Your task to perform on an android device: open wifi settings Image 0: 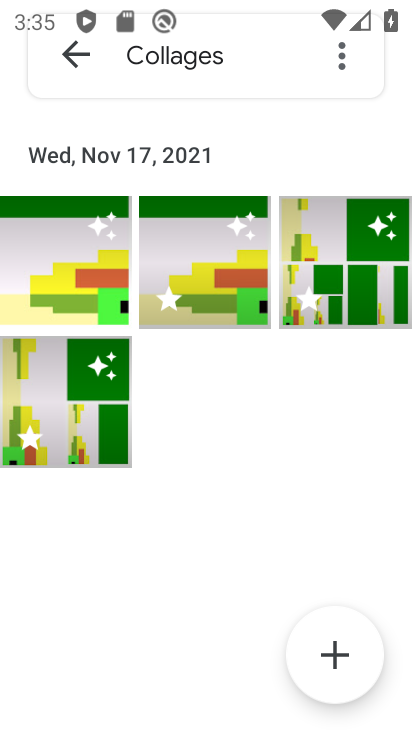
Step 0: press home button
Your task to perform on an android device: open wifi settings Image 1: 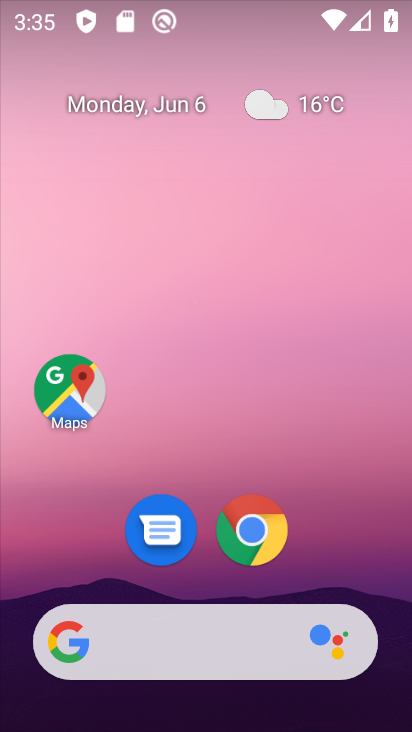
Step 1: drag from (361, 553) to (337, 110)
Your task to perform on an android device: open wifi settings Image 2: 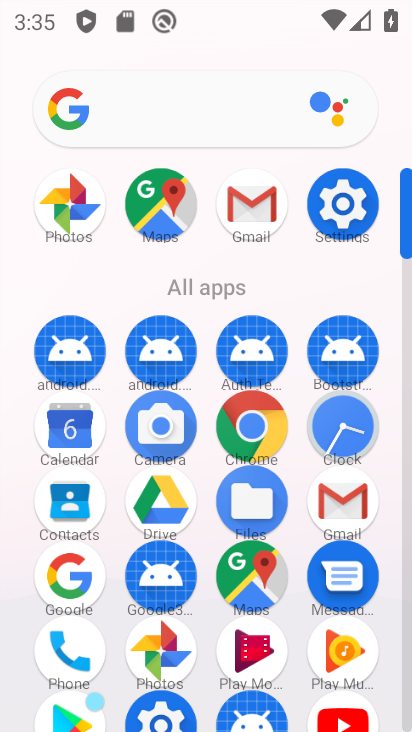
Step 2: click (357, 193)
Your task to perform on an android device: open wifi settings Image 3: 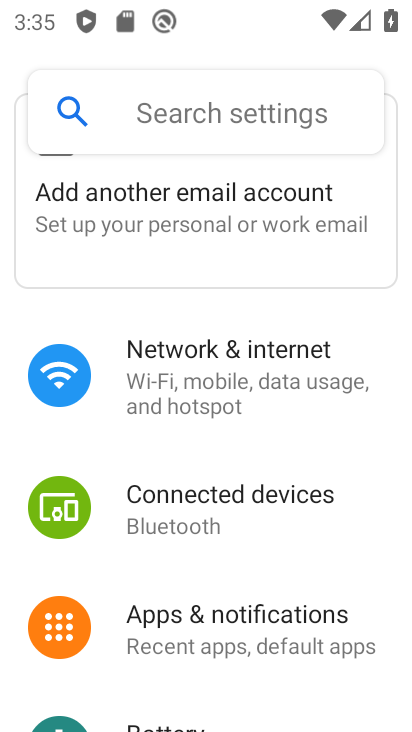
Step 3: click (212, 395)
Your task to perform on an android device: open wifi settings Image 4: 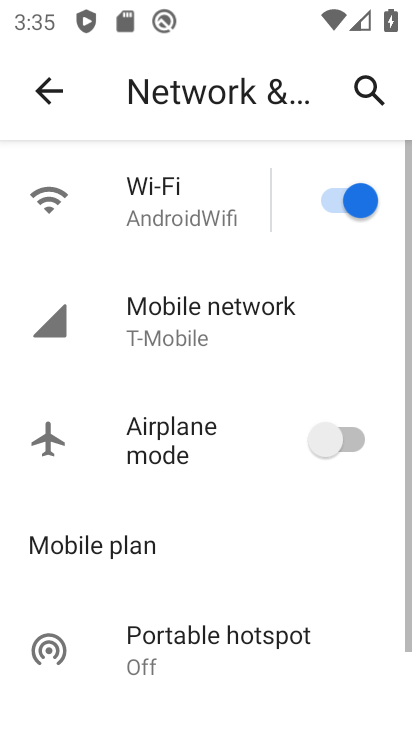
Step 4: click (209, 208)
Your task to perform on an android device: open wifi settings Image 5: 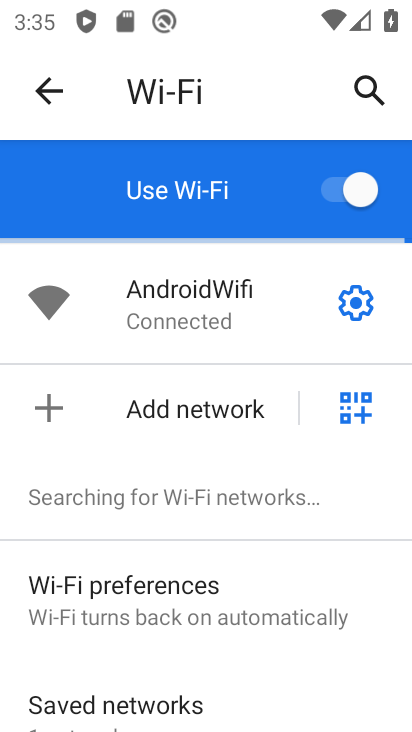
Step 5: click (359, 308)
Your task to perform on an android device: open wifi settings Image 6: 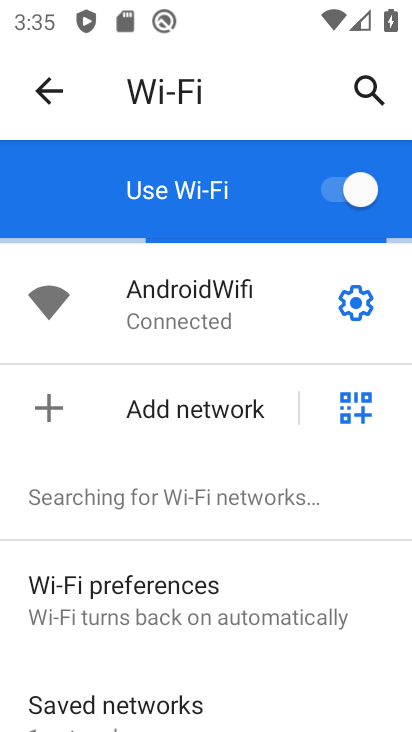
Step 6: click (360, 305)
Your task to perform on an android device: open wifi settings Image 7: 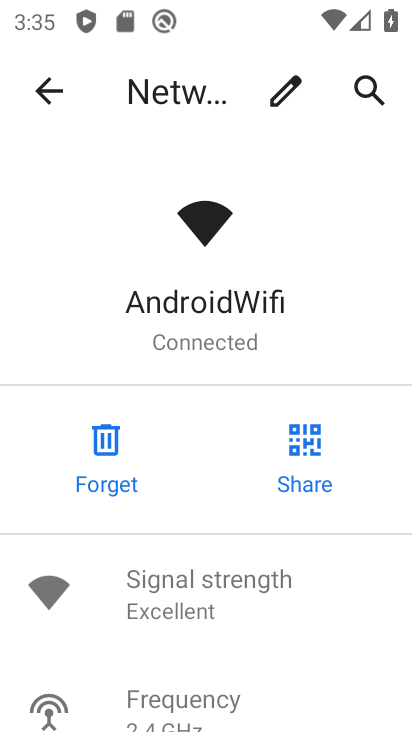
Step 7: task complete